Your task to perform on an android device: install app "Google Drive" Image 0: 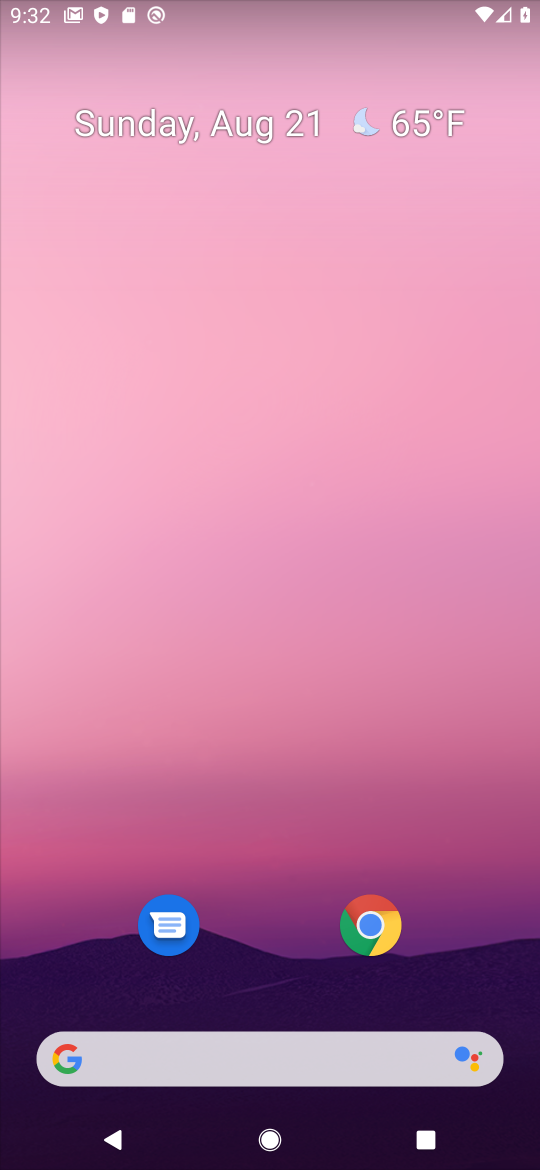
Step 0: drag from (271, 864) to (327, 53)
Your task to perform on an android device: install app "Google Drive" Image 1: 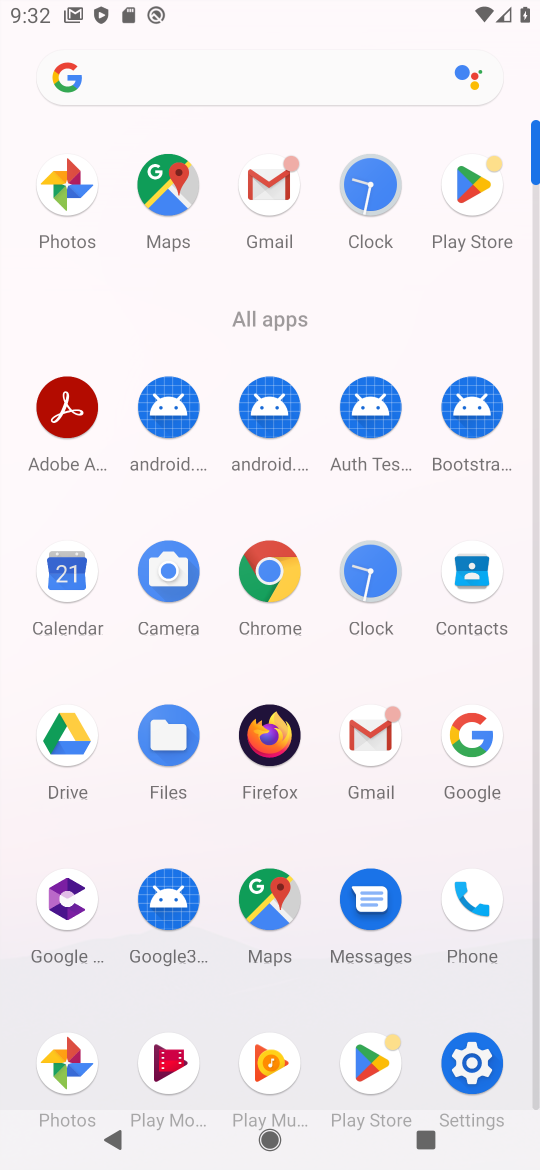
Step 1: click (468, 190)
Your task to perform on an android device: install app "Google Drive" Image 2: 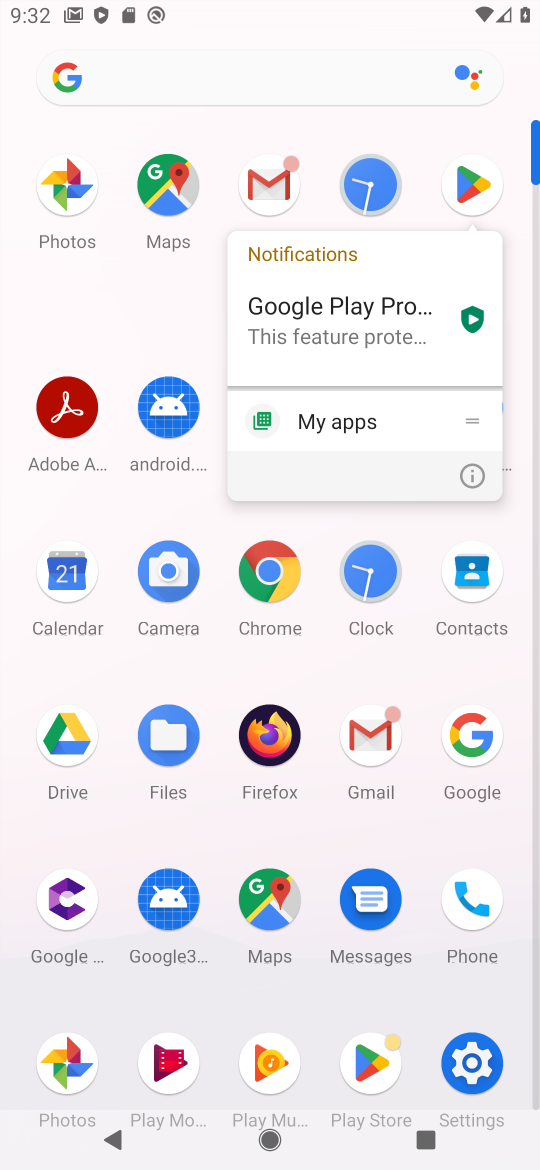
Step 2: click (496, 178)
Your task to perform on an android device: install app "Google Drive" Image 3: 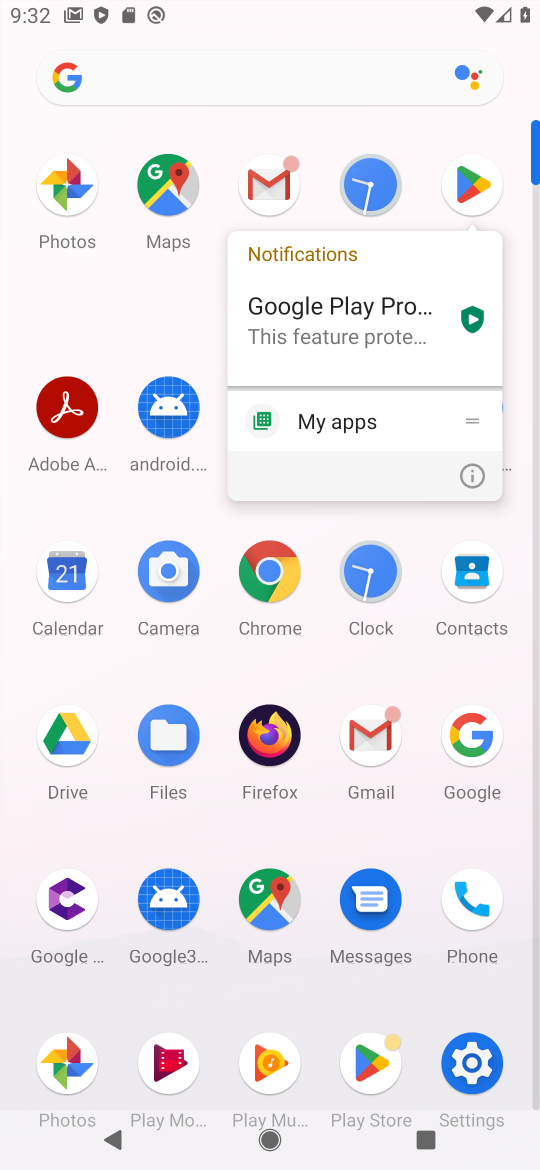
Step 3: click (483, 178)
Your task to perform on an android device: install app "Google Drive" Image 4: 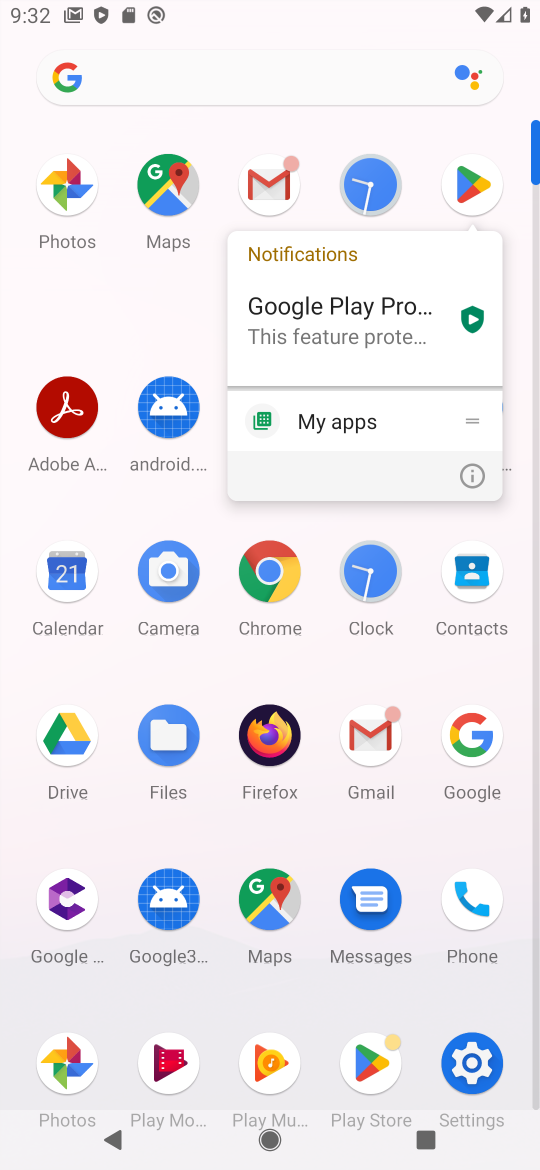
Step 4: click (480, 178)
Your task to perform on an android device: install app "Google Drive" Image 5: 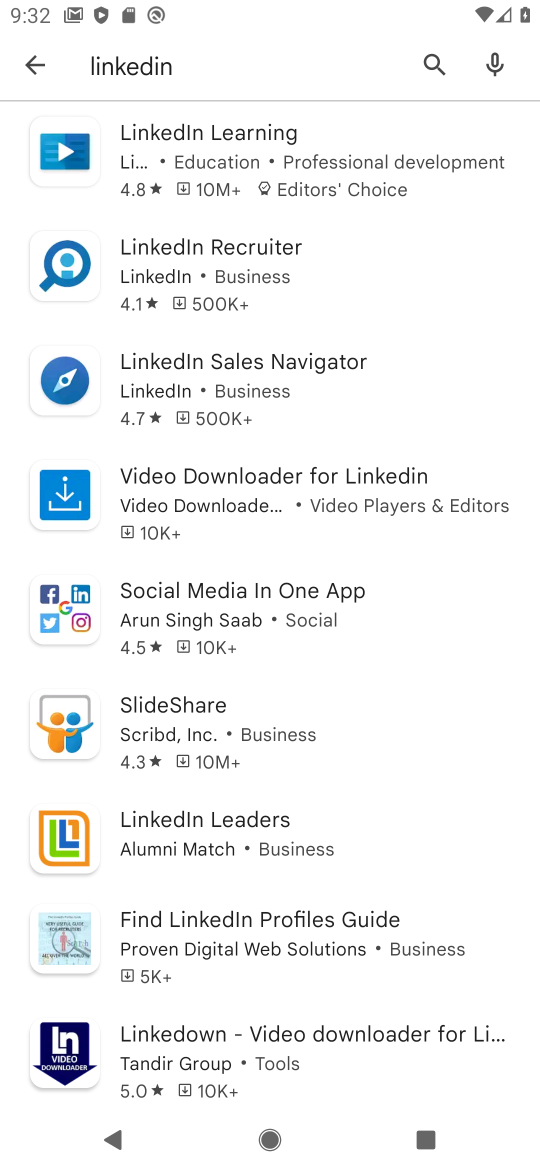
Step 5: click (455, 67)
Your task to perform on an android device: install app "Google Drive" Image 6: 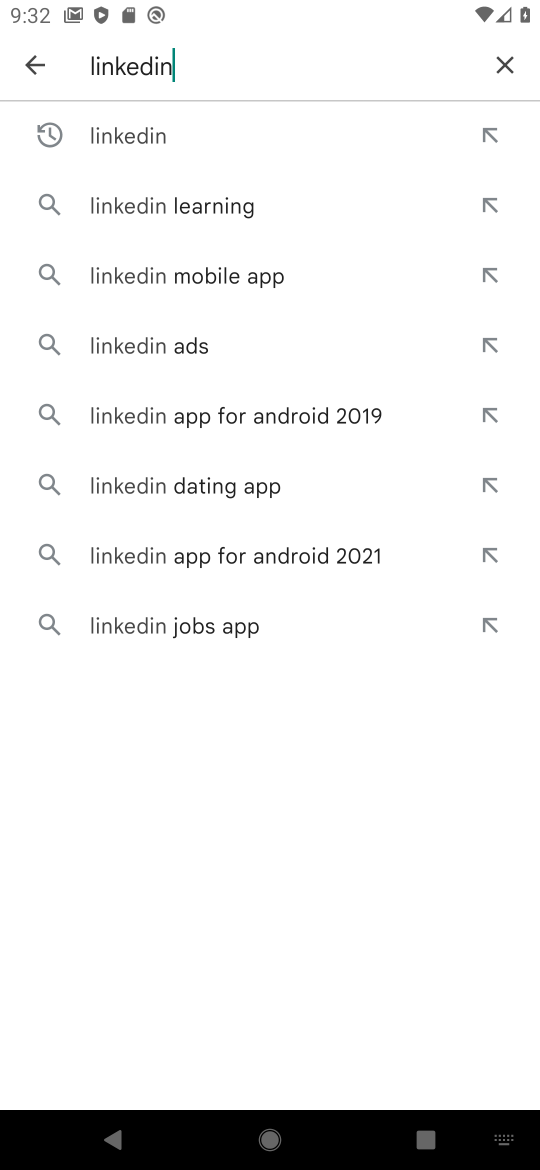
Step 6: click (504, 57)
Your task to perform on an android device: install app "Google Drive" Image 7: 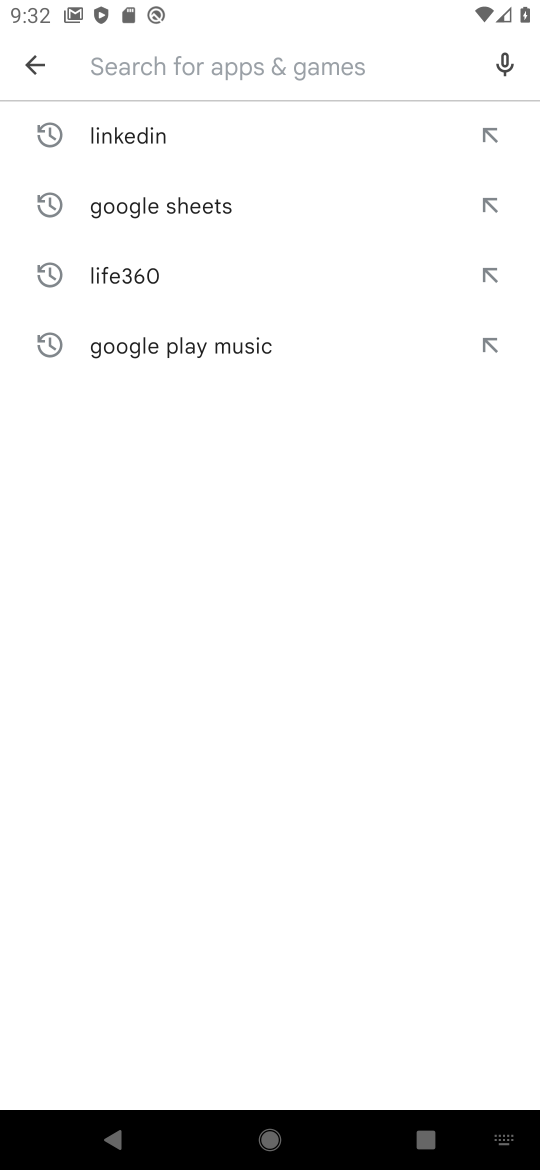
Step 7: click (162, 63)
Your task to perform on an android device: install app "Google Drive" Image 8: 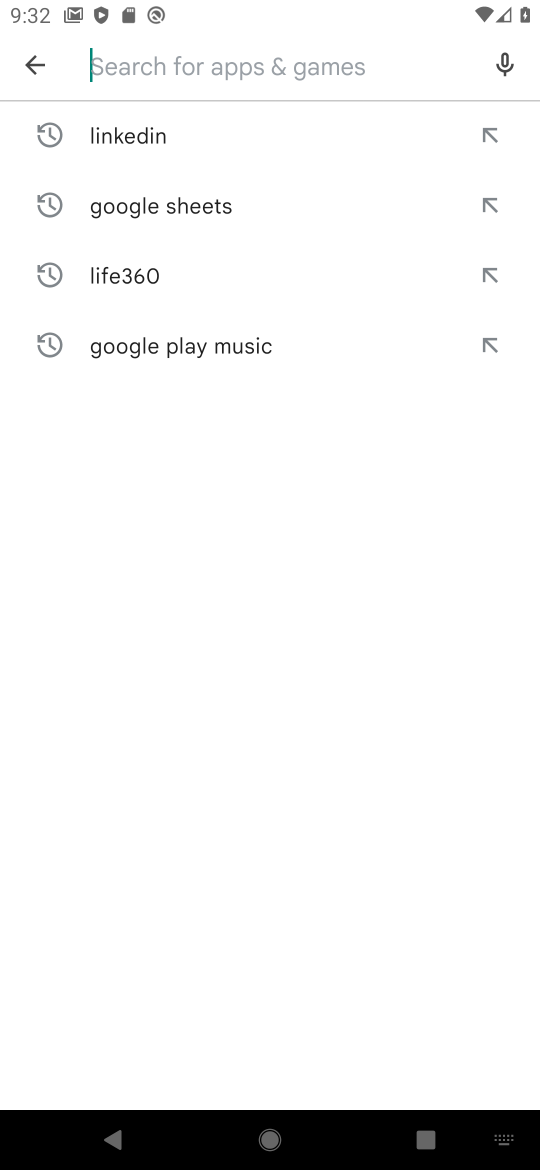
Step 8: type "Google Drive"
Your task to perform on an android device: install app "Google Drive" Image 9: 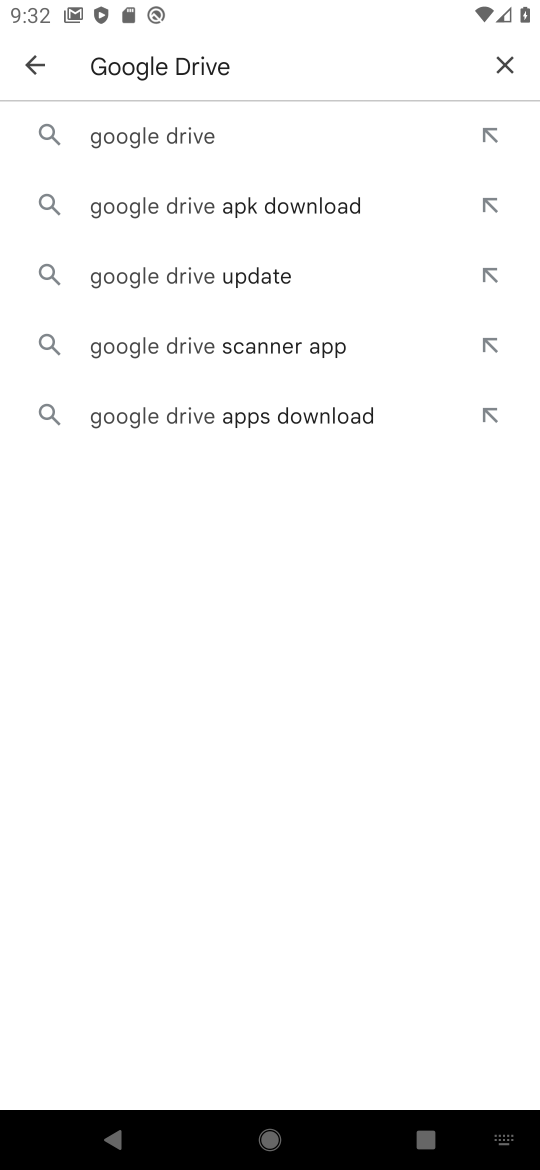
Step 9: click (207, 143)
Your task to perform on an android device: install app "Google Drive" Image 10: 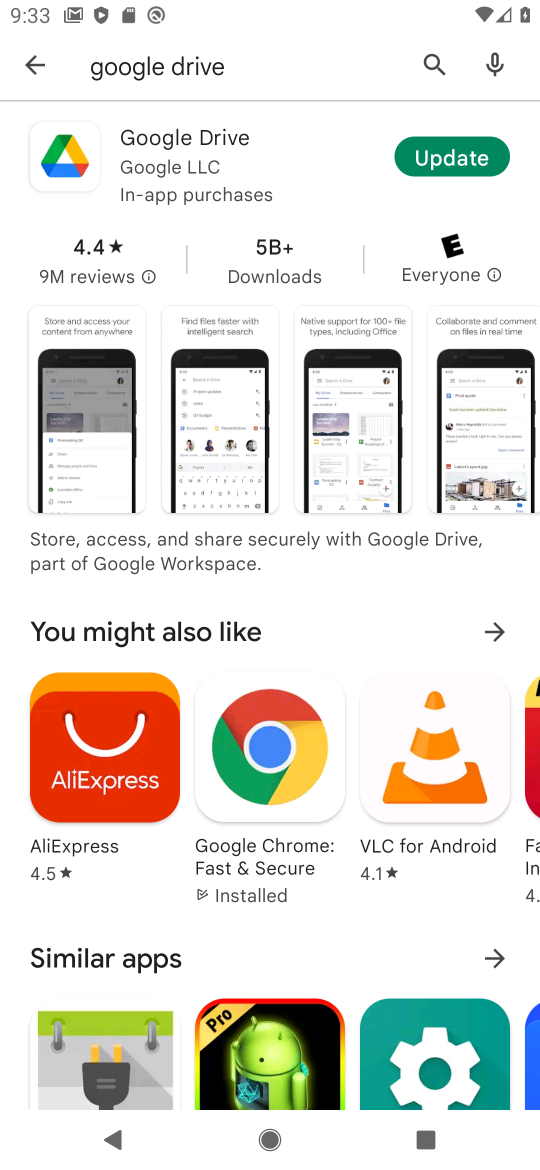
Step 10: click (194, 162)
Your task to perform on an android device: install app "Google Drive" Image 11: 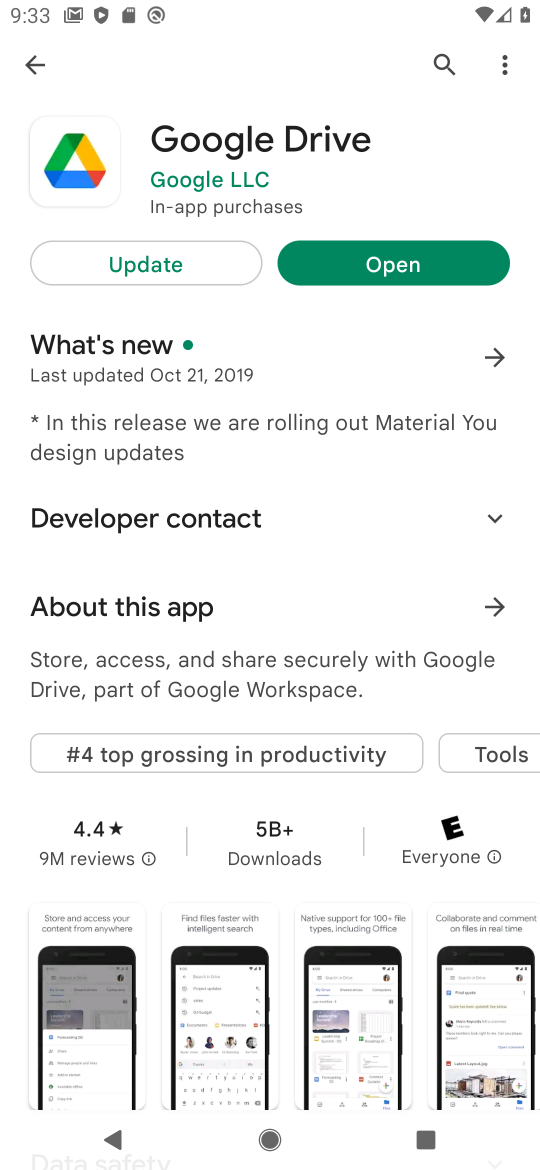
Step 11: task complete